Your task to perform on an android device: toggle wifi Image 0: 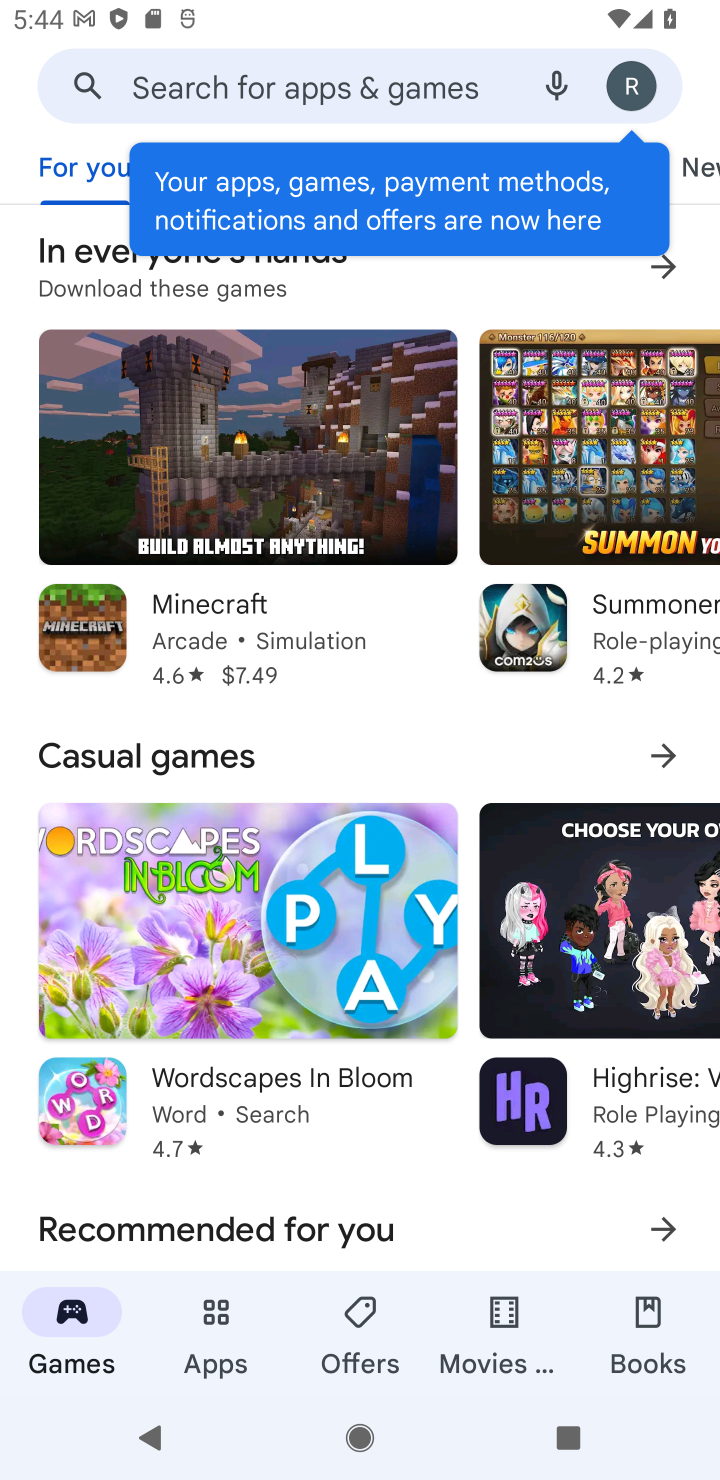
Step 0: press home button
Your task to perform on an android device: toggle wifi Image 1: 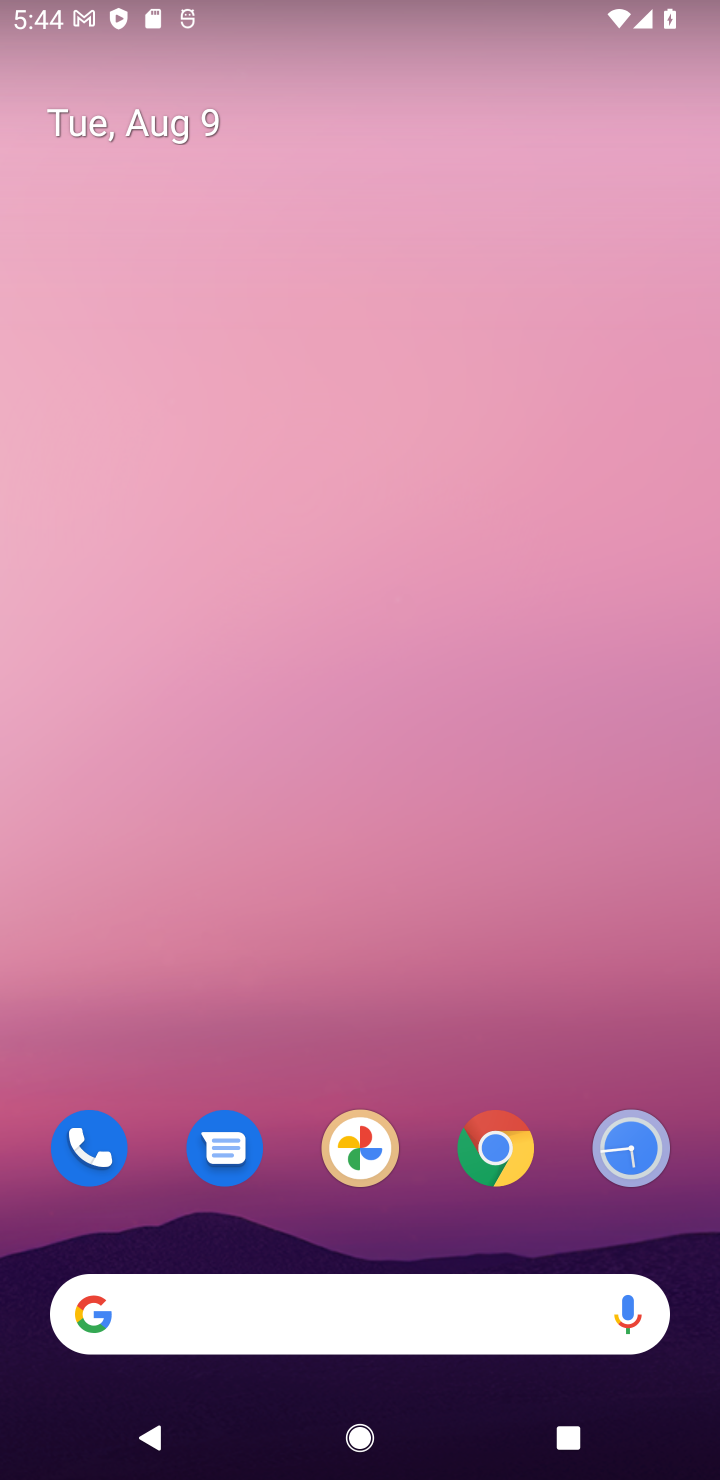
Step 1: drag from (296, 1255) to (268, 4)
Your task to perform on an android device: toggle wifi Image 2: 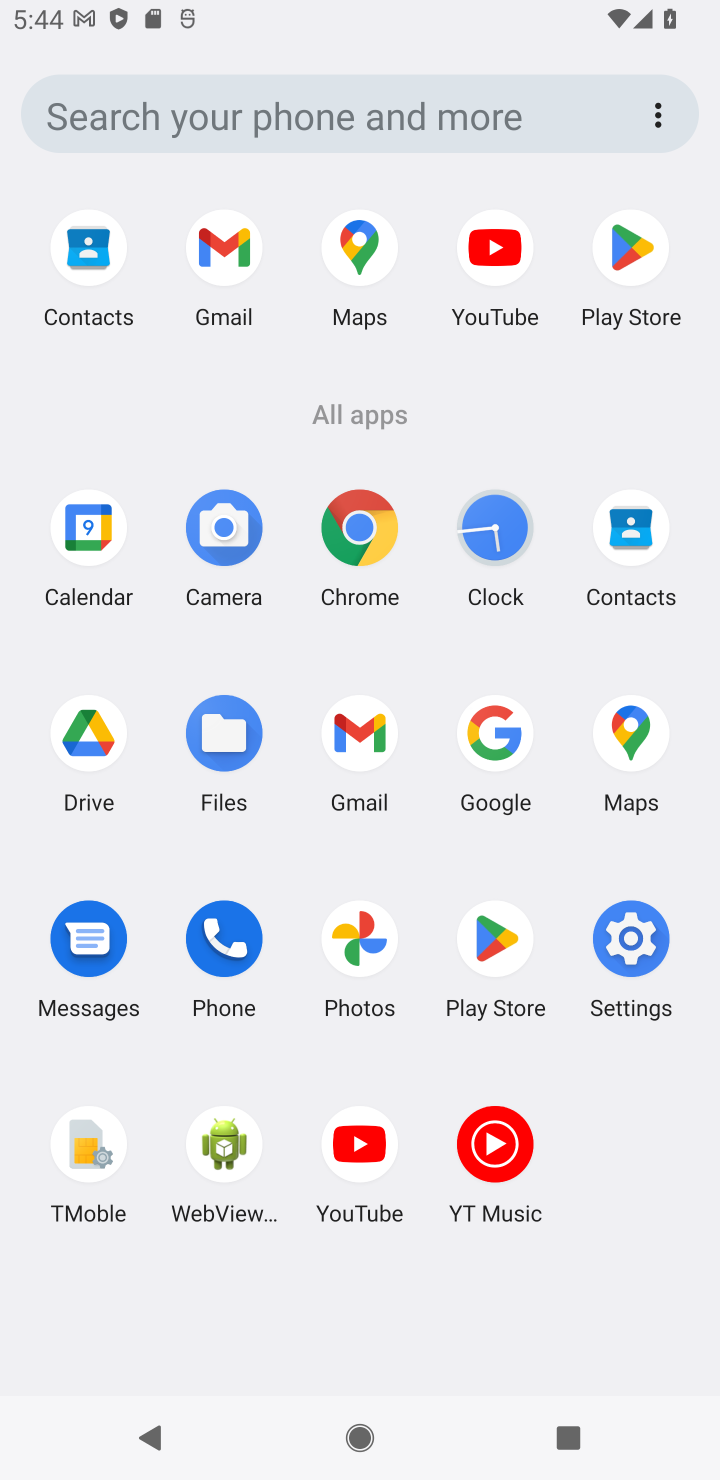
Step 2: click (638, 975)
Your task to perform on an android device: toggle wifi Image 3: 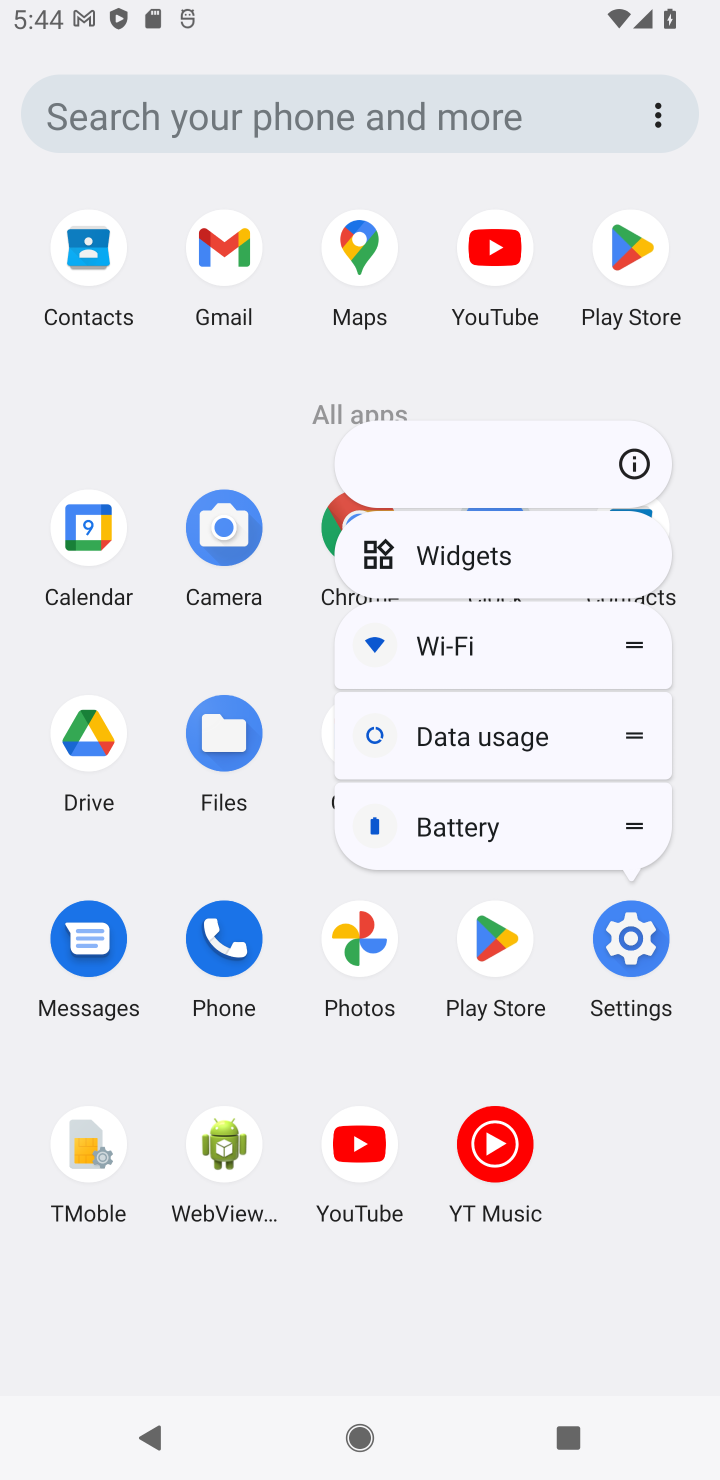
Step 3: click (638, 975)
Your task to perform on an android device: toggle wifi Image 4: 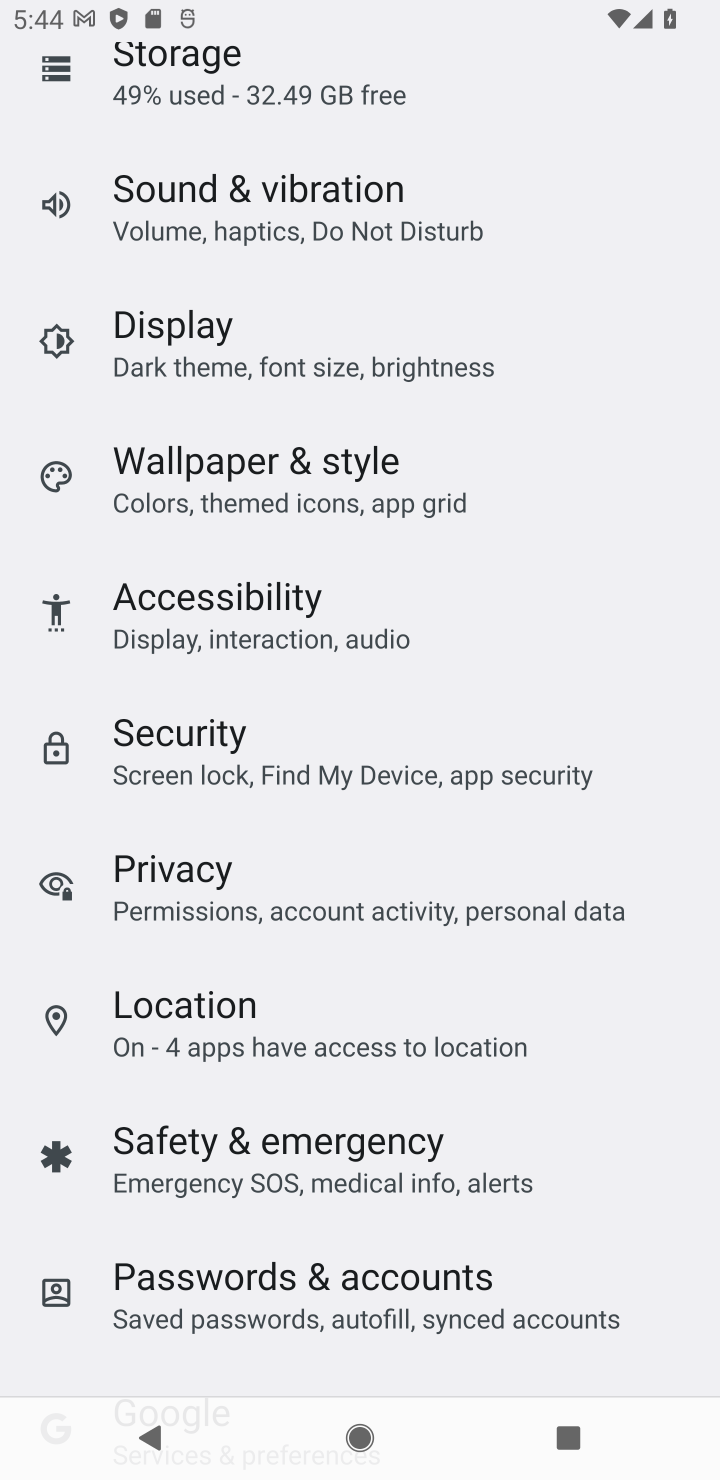
Step 4: drag from (394, 407) to (385, 1364)
Your task to perform on an android device: toggle wifi Image 5: 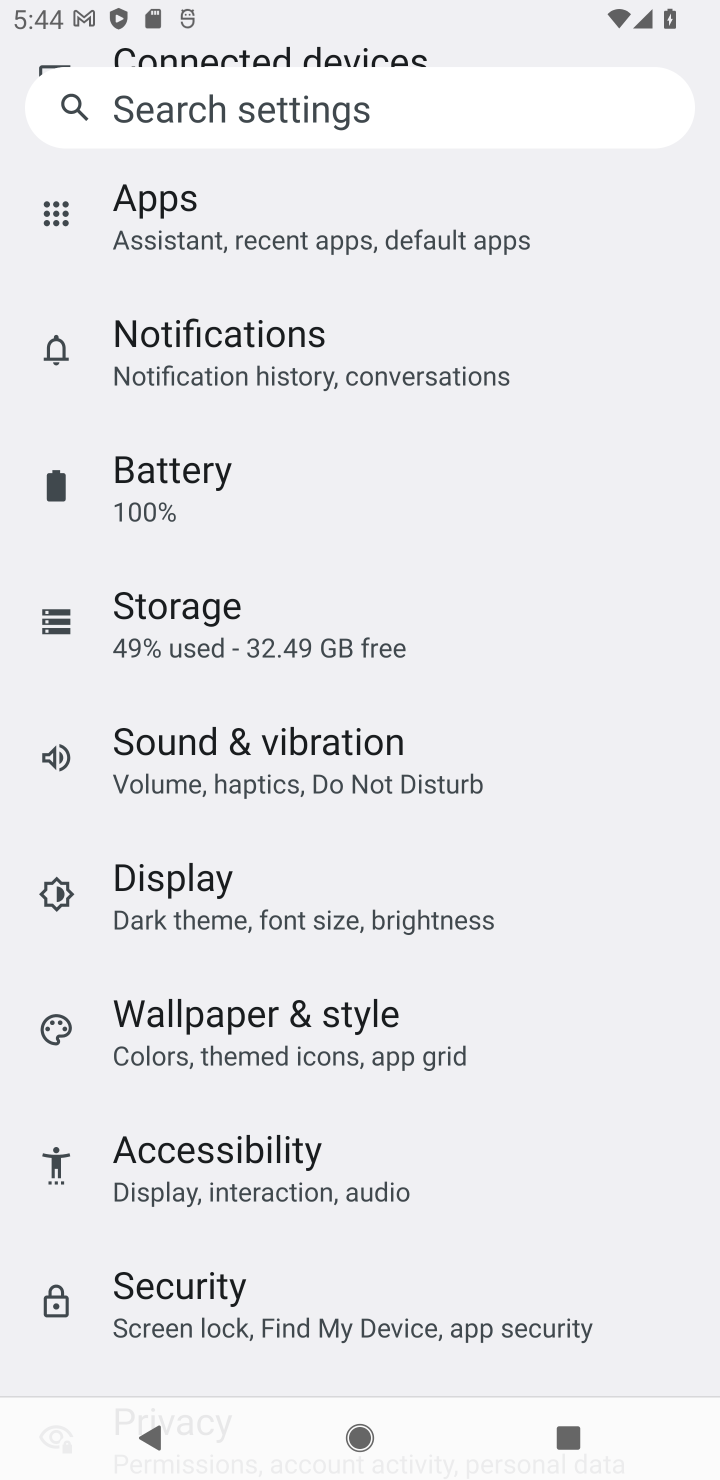
Step 5: drag from (256, 494) to (173, 1478)
Your task to perform on an android device: toggle wifi Image 6: 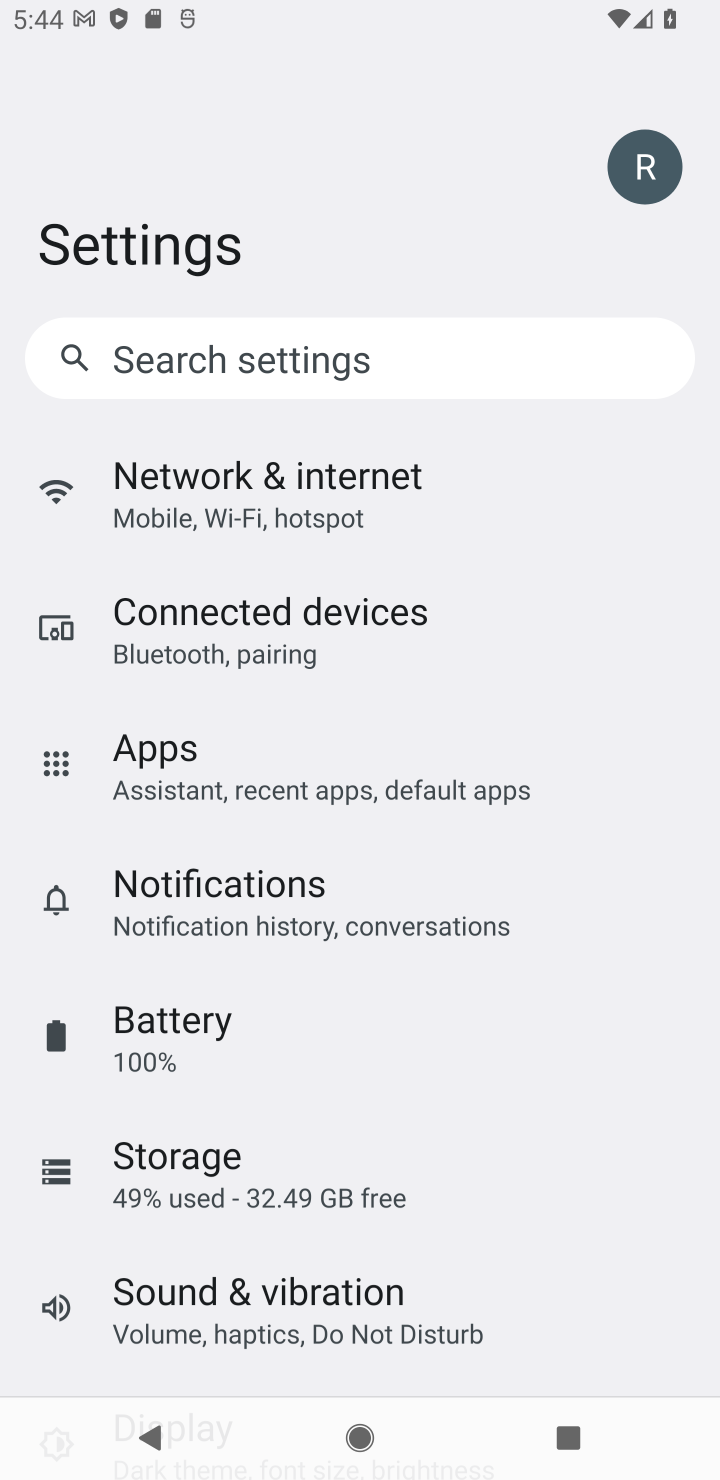
Step 6: click (314, 480)
Your task to perform on an android device: toggle wifi Image 7: 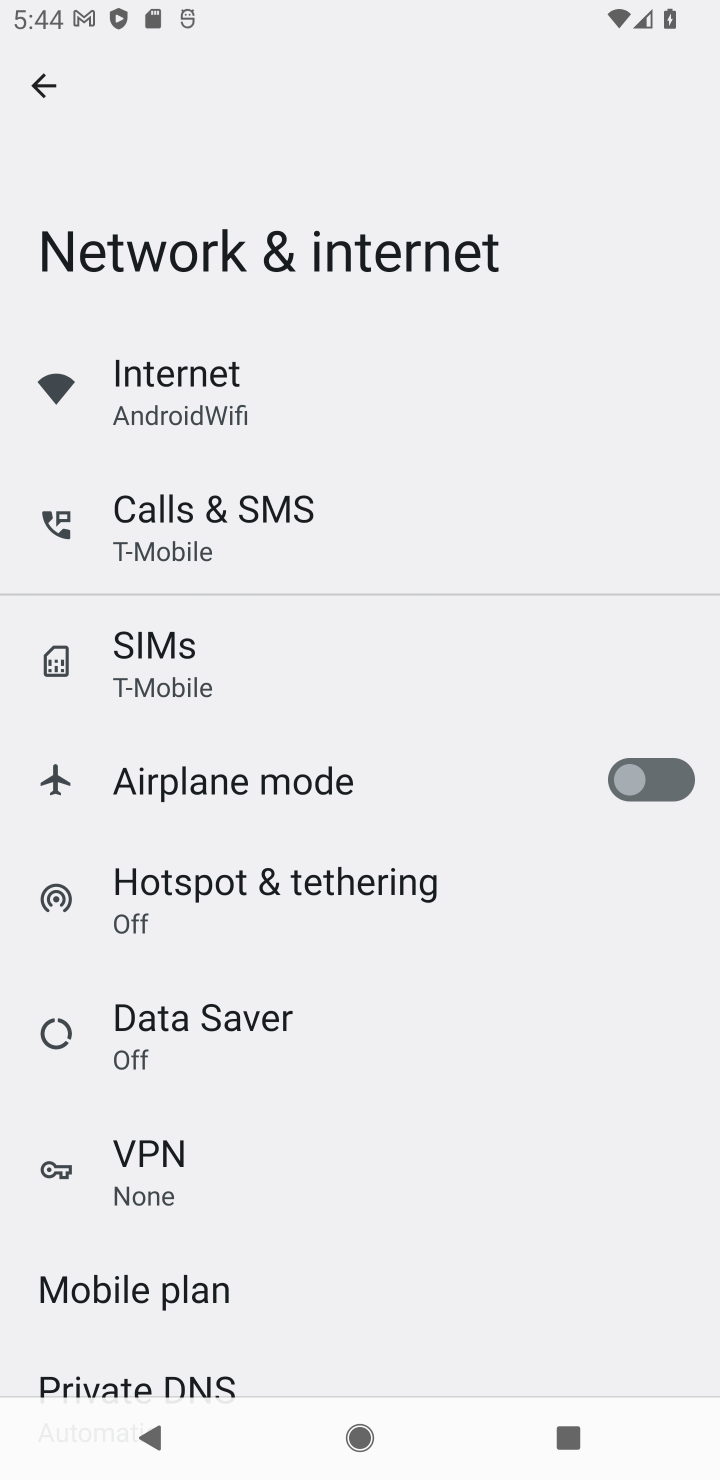
Step 7: click (234, 380)
Your task to perform on an android device: toggle wifi Image 8: 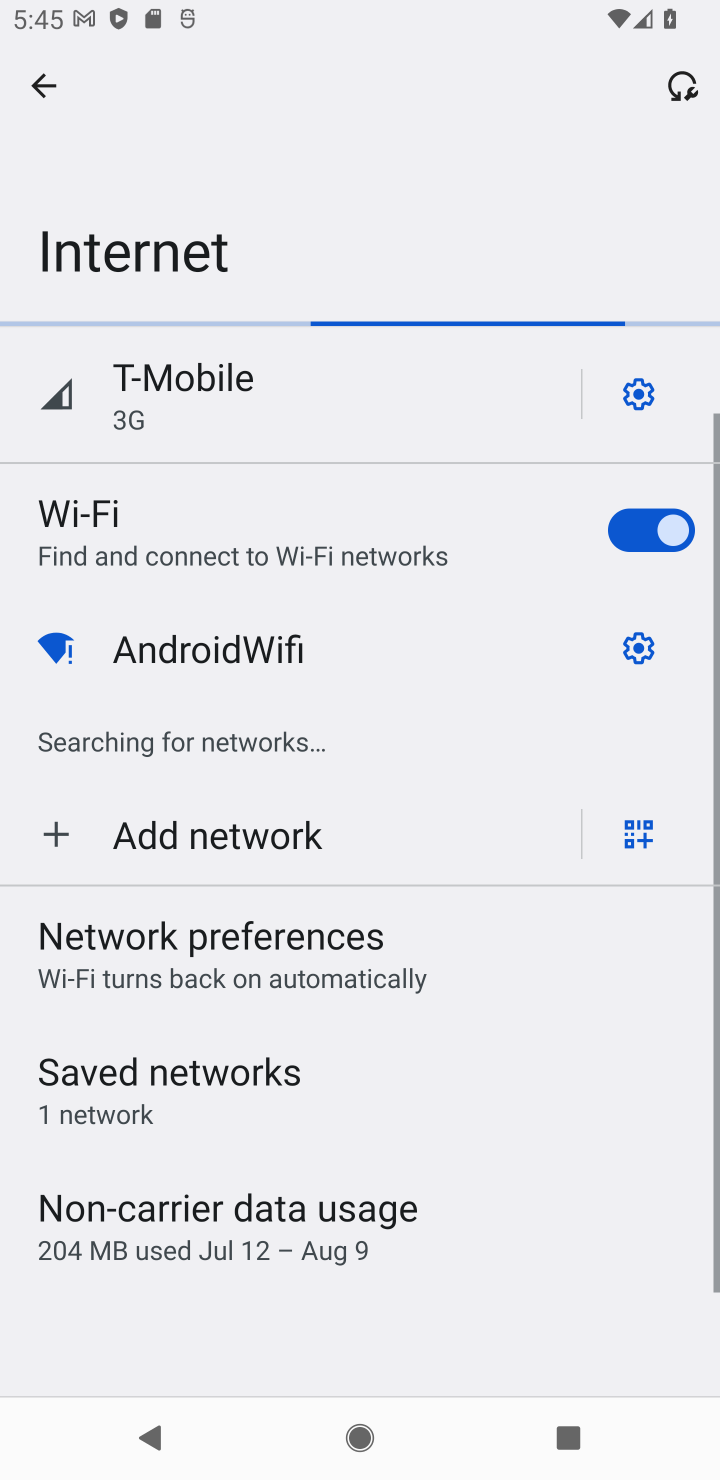
Step 8: click (583, 515)
Your task to perform on an android device: toggle wifi Image 9: 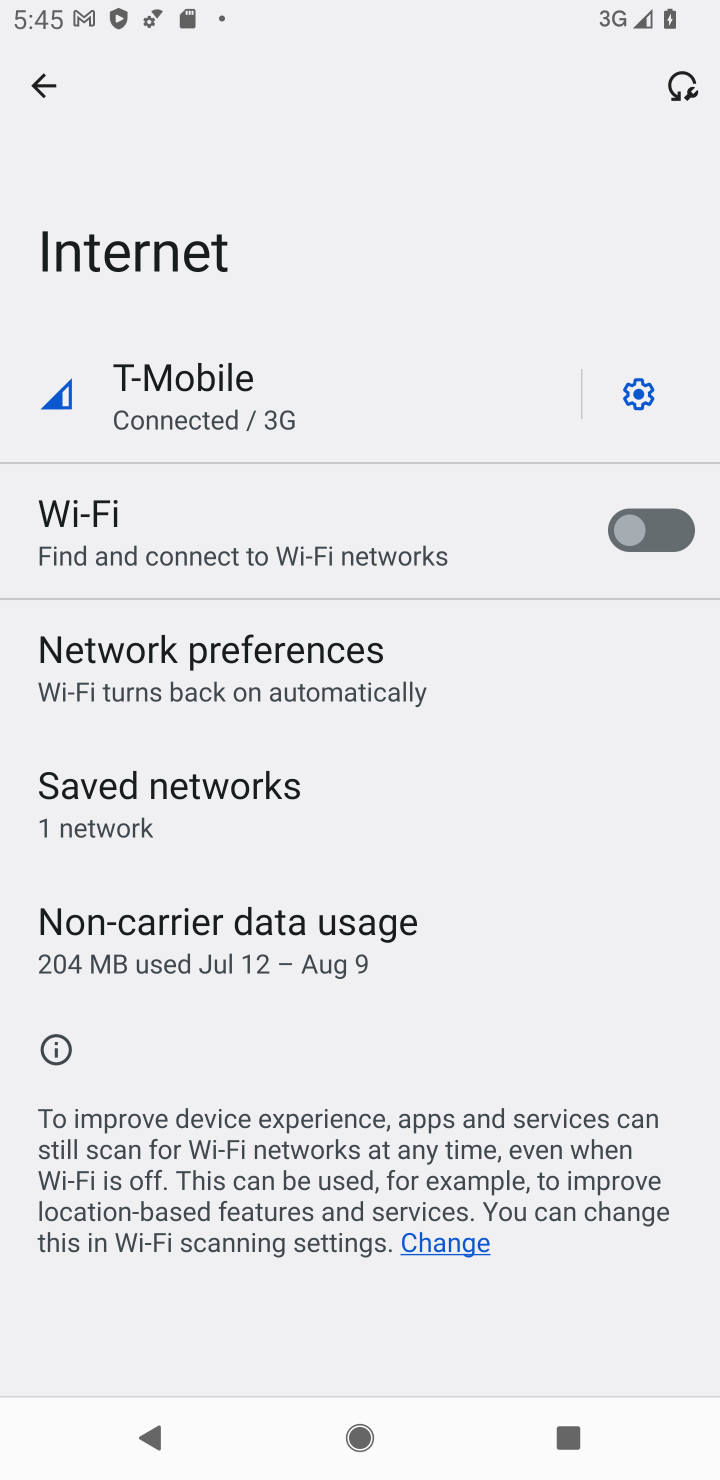
Step 9: task complete